Your task to perform on an android device: Go to display settings Image 0: 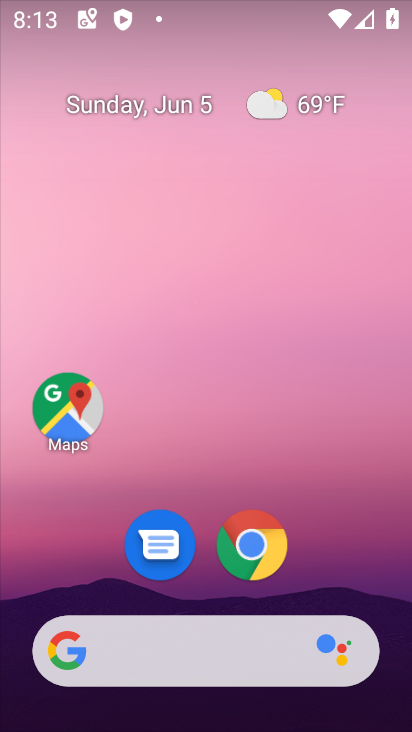
Step 0: drag from (388, 596) to (362, 156)
Your task to perform on an android device: Go to display settings Image 1: 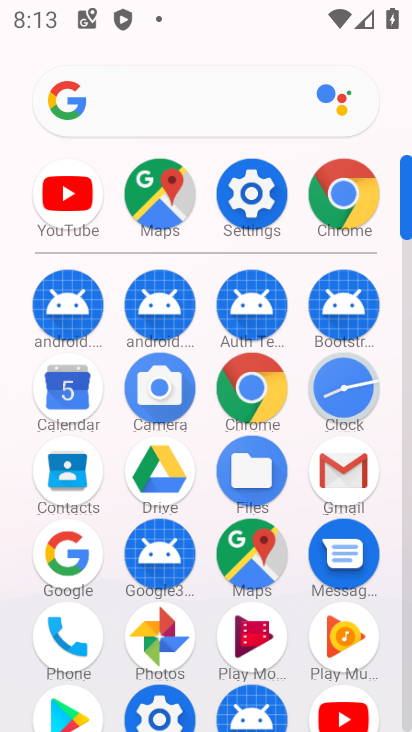
Step 1: click (269, 223)
Your task to perform on an android device: Go to display settings Image 2: 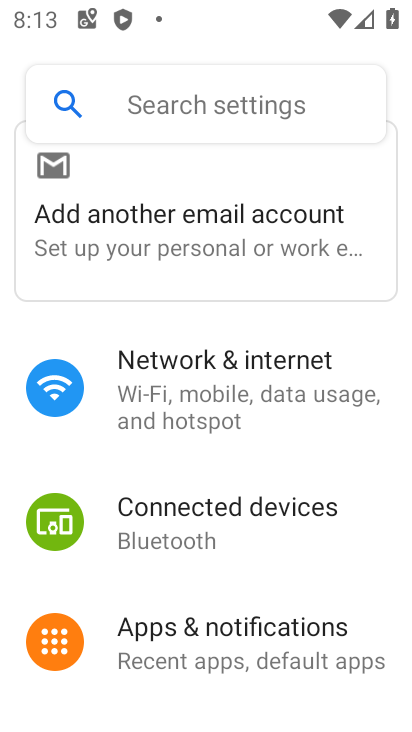
Step 2: drag from (375, 554) to (374, 438)
Your task to perform on an android device: Go to display settings Image 3: 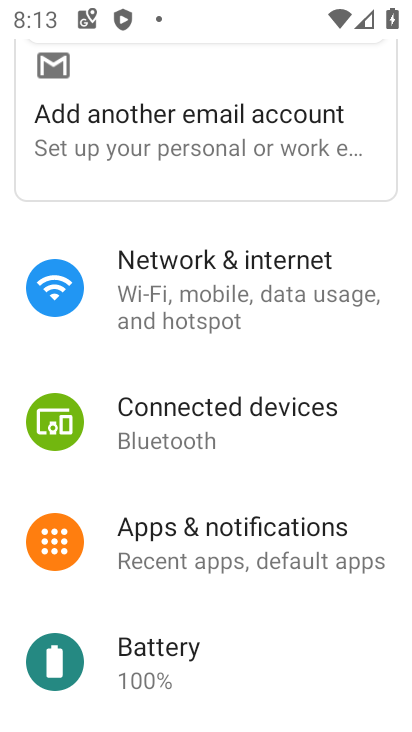
Step 3: drag from (374, 620) to (384, 489)
Your task to perform on an android device: Go to display settings Image 4: 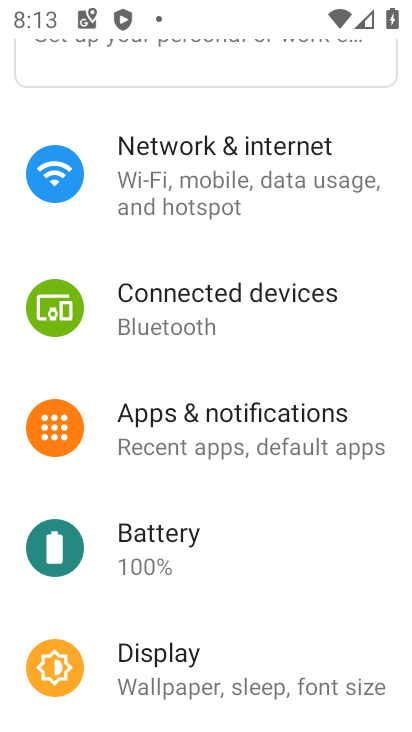
Step 4: drag from (381, 607) to (376, 482)
Your task to perform on an android device: Go to display settings Image 5: 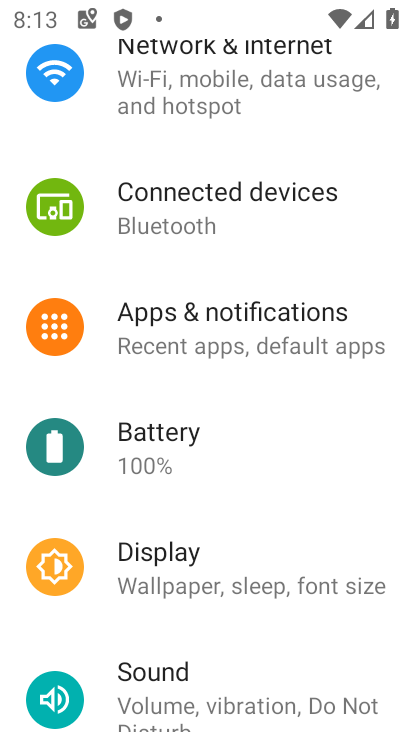
Step 5: drag from (363, 625) to (369, 424)
Your task to perform on an android device: Go to display settings Image 6: 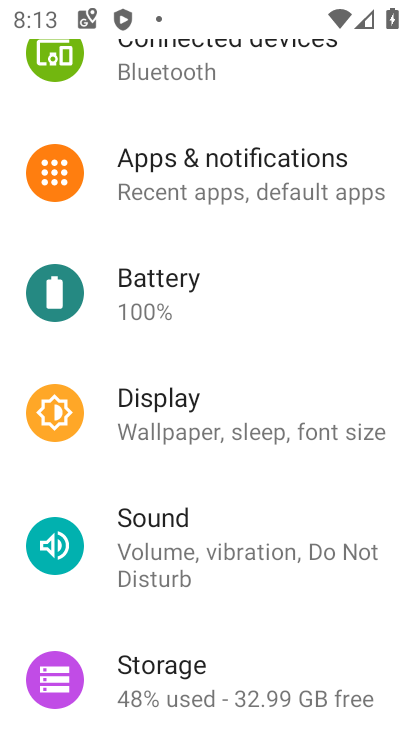
Step 6: drag from (369, 620) to (376, 454)
Your task to perform on an android device: Go to display settings Image 7: 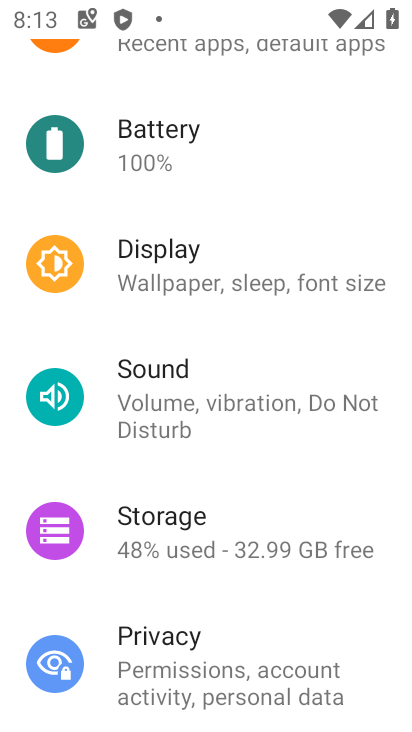
Step 7: click (266, 286)
Your task to perform on an android device: Go to display settings Image 8: 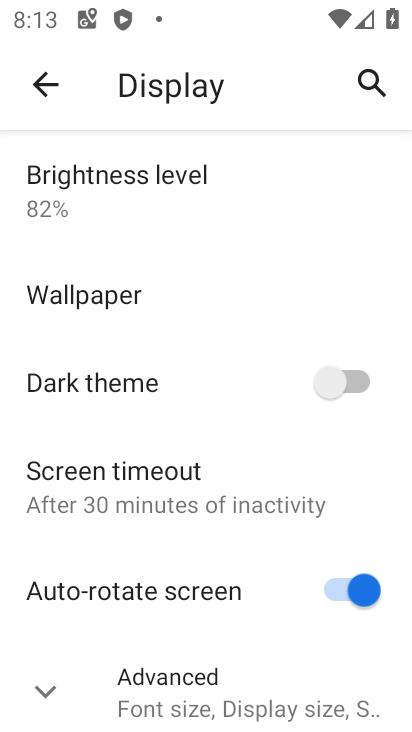
Step 8: click (249, 683)
Your task to perform on an android device: Go to display settings Image 9: 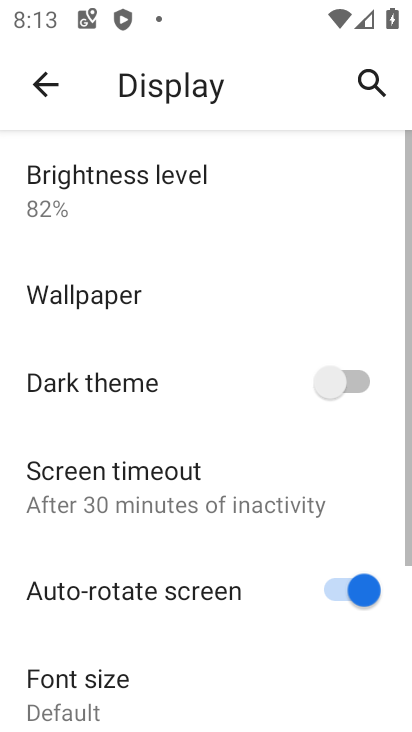
Step 9: task complete